Your task to perform on an android device: Go to ESPN.com Image 0: 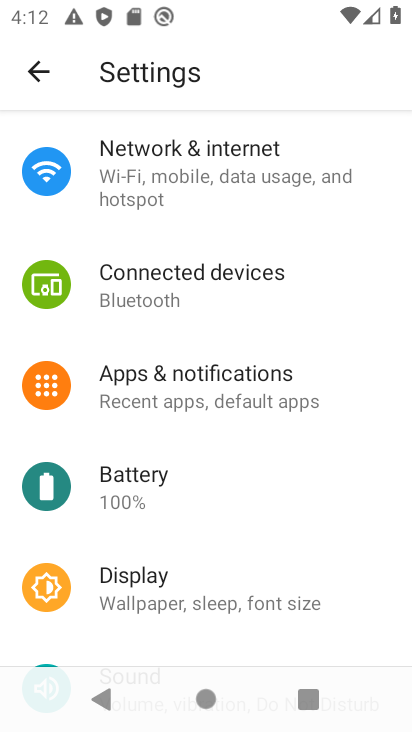
Step 0: drag from (211, 526) to (231, 146)
Your task to perform on an android device: Go to ESPN.com Image 1: 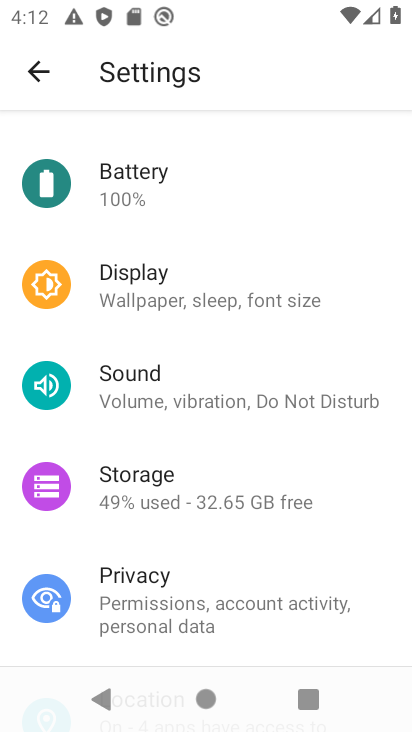
Step 1: drag from (192, 563) to (171, 174)
Your task to perform on an android device: Go to ESPN.com Image 2: 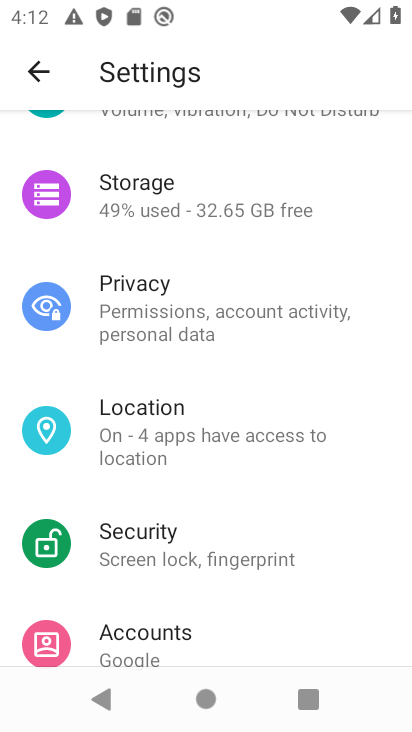
Step 2: drag from (268, 589) to (278, 243)
Your task to perform on an android device: Go to ESPN.com Image 3: 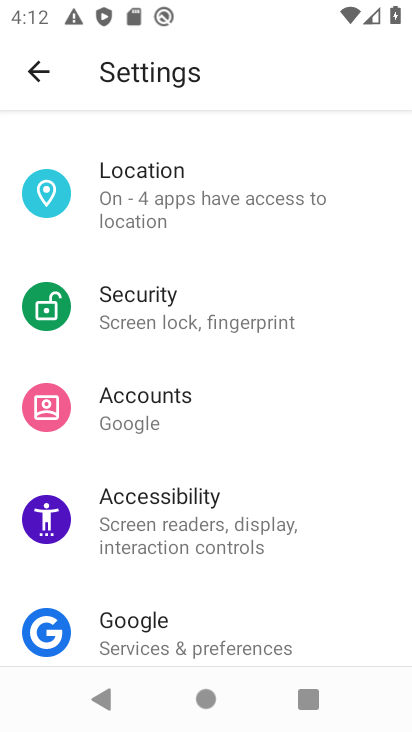
Step 3: drag from (233, 599) to (251, 191)
Your task to perform on an android device: Go to ESPN.com Image 4: 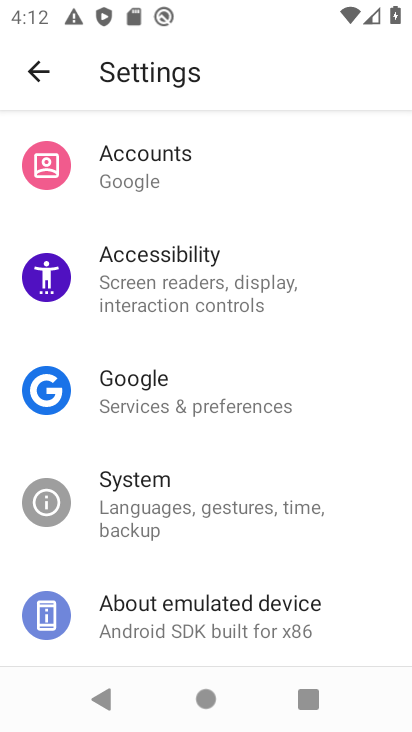
Step 4: drag from (197, 569) to (236, 186)
Your task to perform on an android device: Go to ESPN.com Image 5: 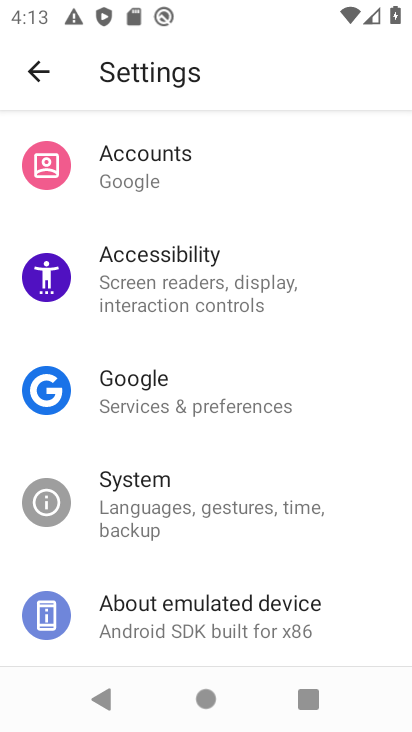
Step 5: click (218, 608)
Your task to perform on an android device: Go to ESPN.com Image 6: 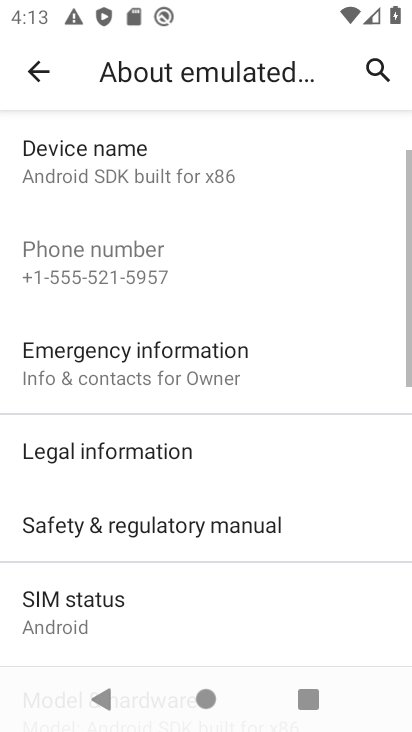
Step 6: task complete